Your task to perform on an android device: turn off picture-in-picture Image 0: 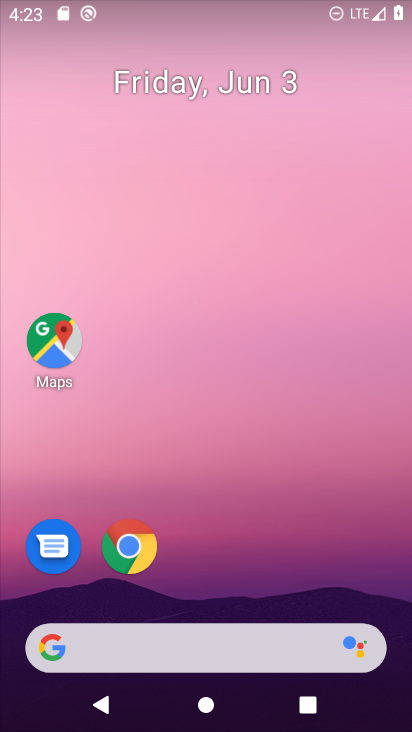
Step 0: click (131, 544)
Your task to perform on an android device: turn off picture-in-picture Image 1: 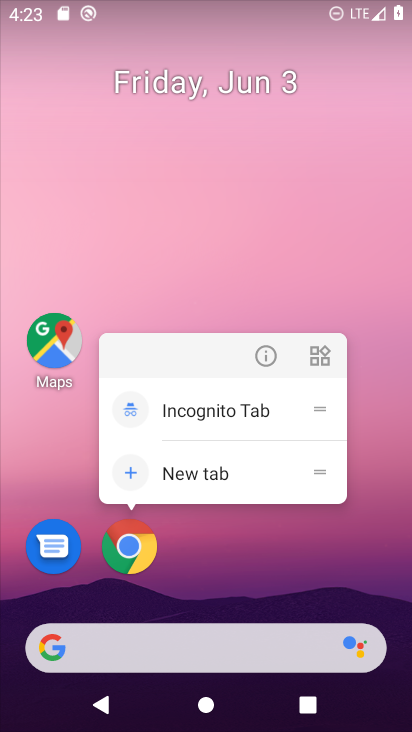
Step 1: click (263, 349)
Your task to perform on an android device: turn off picture-in-picture Image 2: 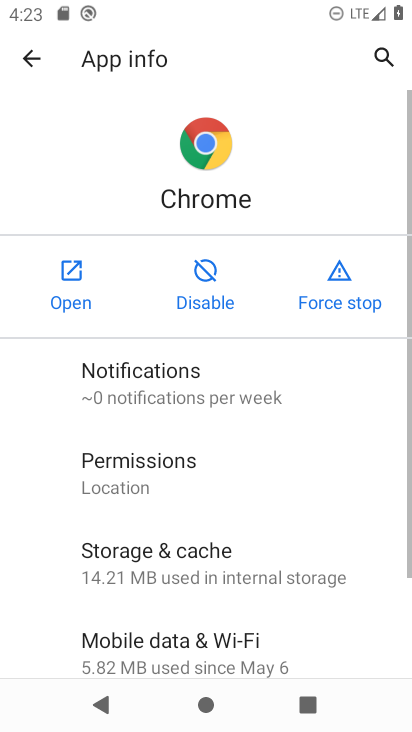
Step 2: drag from (232, 540) to (291, 2)
Your task to perform on an android device: turn off picture-in-picture Image 3: 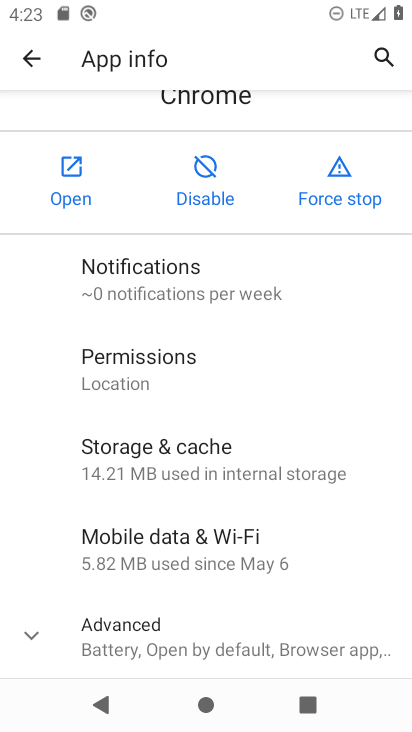
Step 3: click (32, 628)
Your task to perform on an android device: turn off picture-in-picture Image 4: 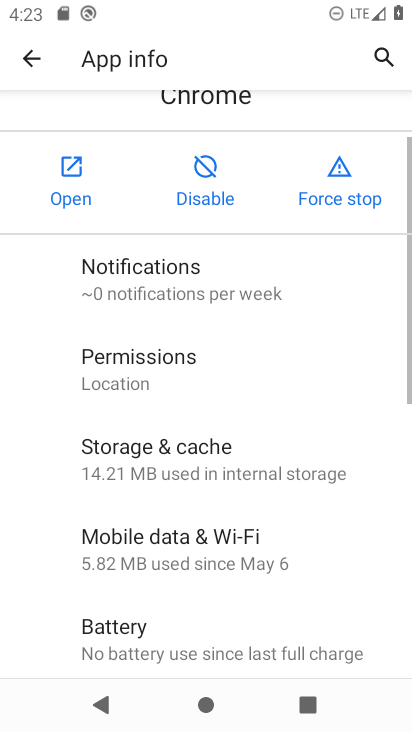
Step 4: drag from (271, 569) to (325, 1)
Your task to perform on an android device: turn off picture-in-picture Image 5: 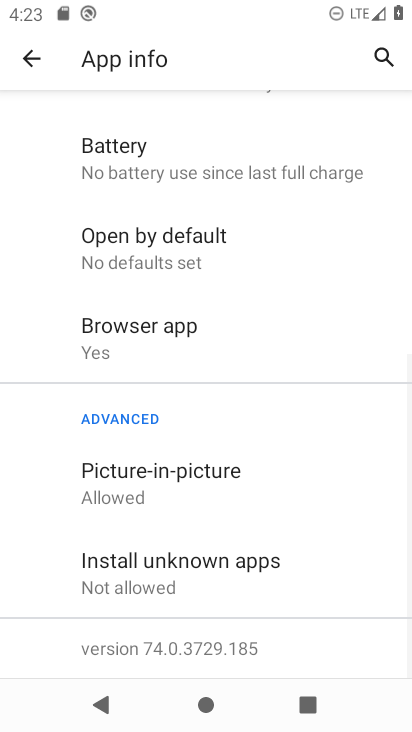
Step 5: click (192, 473)
Your task to perform on an android device: turn off picture-in-picture Image 6: 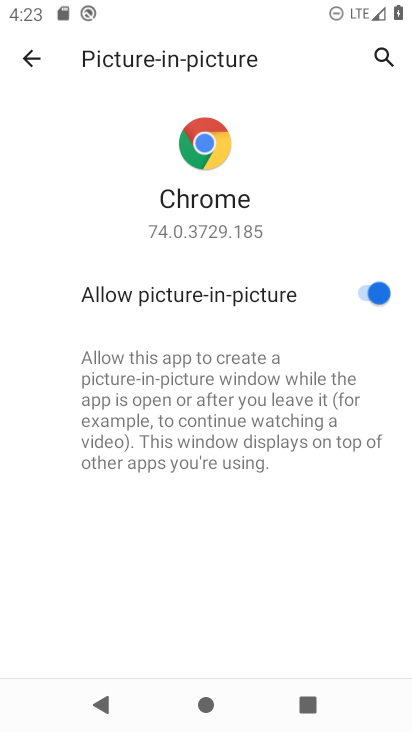
Step 6: click (369, 285)
Your task to perform on an android device: turn off picture-in-picture Image 7: 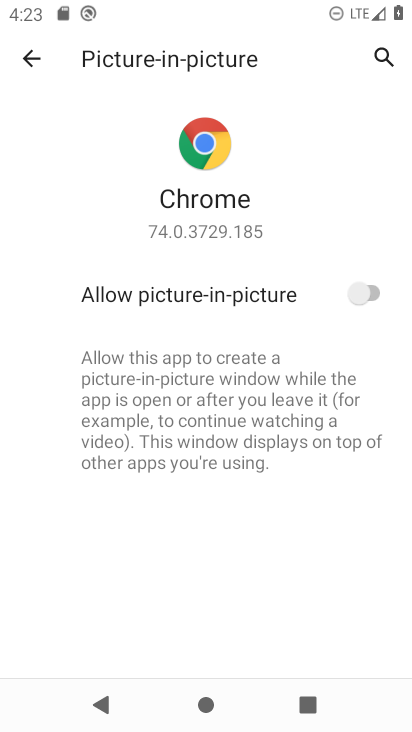
Step 7: task complete